Your task to perform on an android device: View the shopping cart on target. Add alienware aurora to the cart on target Image 0: 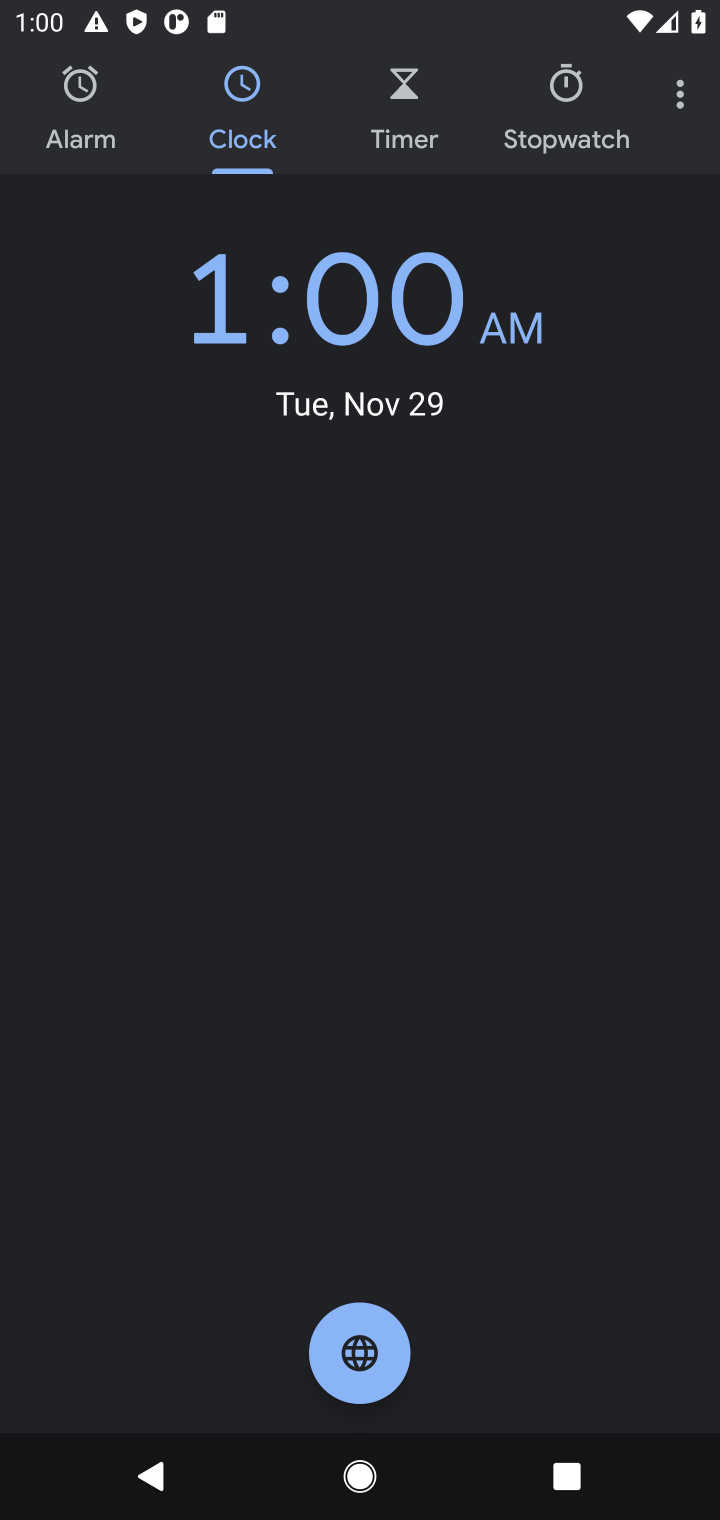
Step 0: press home button
Your task to perform on an android device: View the shopping cart on target. Add alienware aurora to the cart on target Image 1: 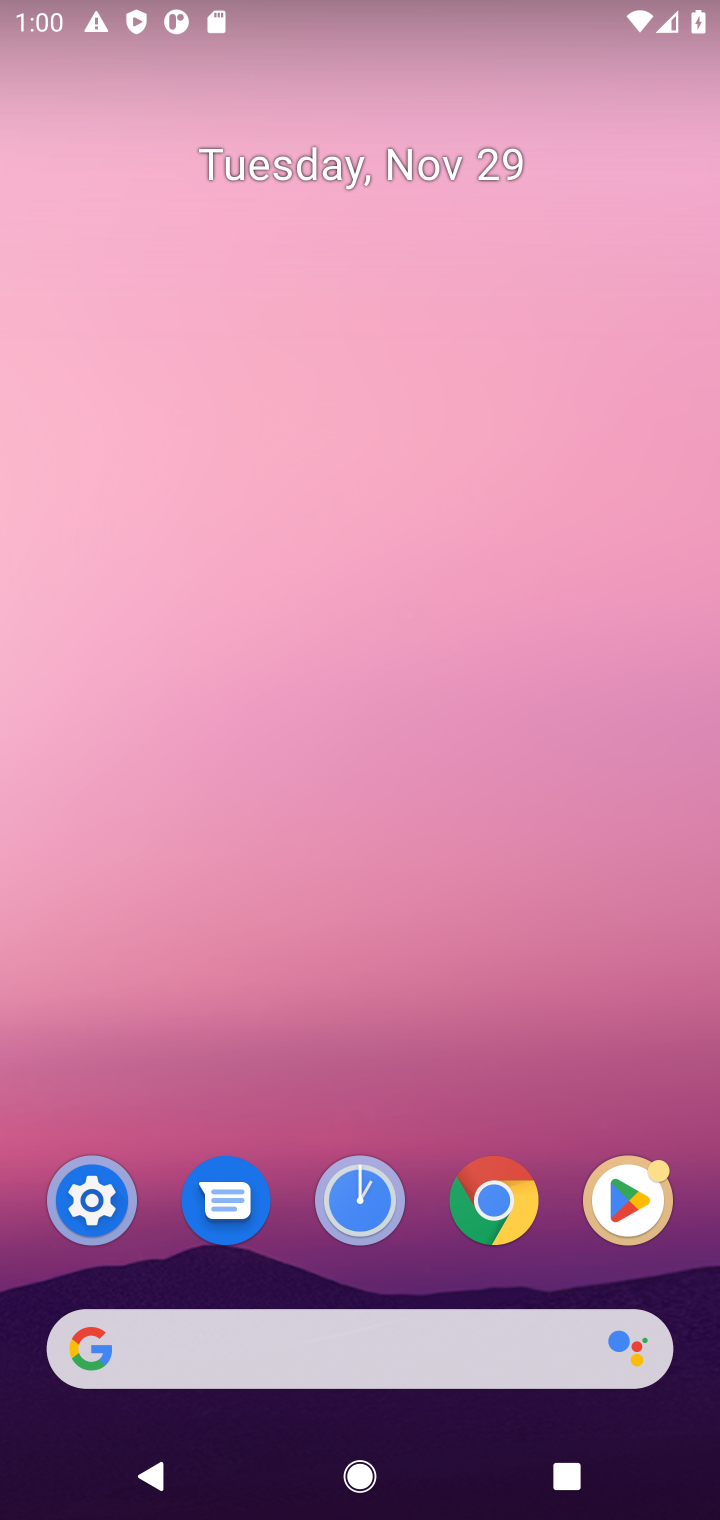
Step 1: click (309, 1323)
Your task to perform on an android device: View the shopping cart on target. Add alienware aurora to the cart on target Image 2: 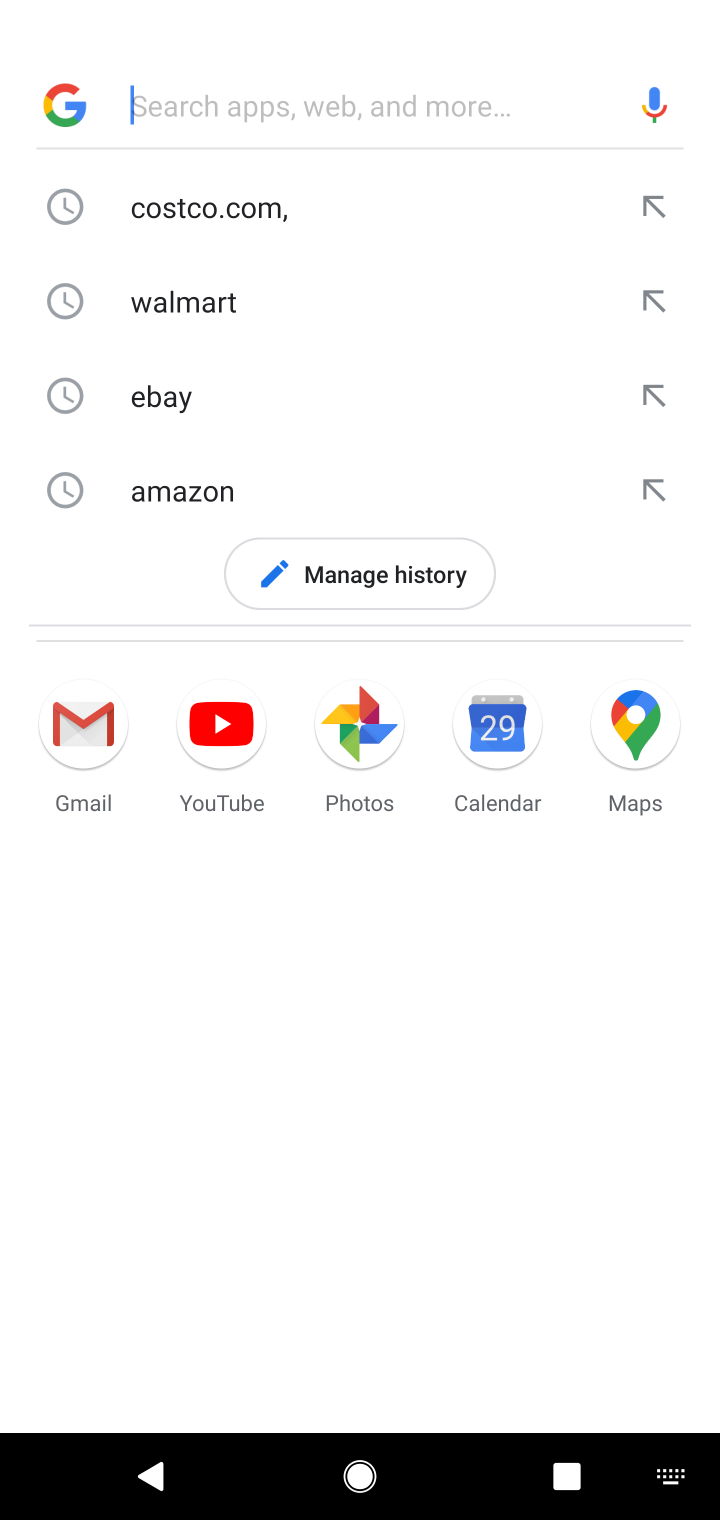
Step 2: click (170, 338)
Your task to perform on an android device: View the shopping cart on target. Add alienware aurora to the cart on target Image 3: 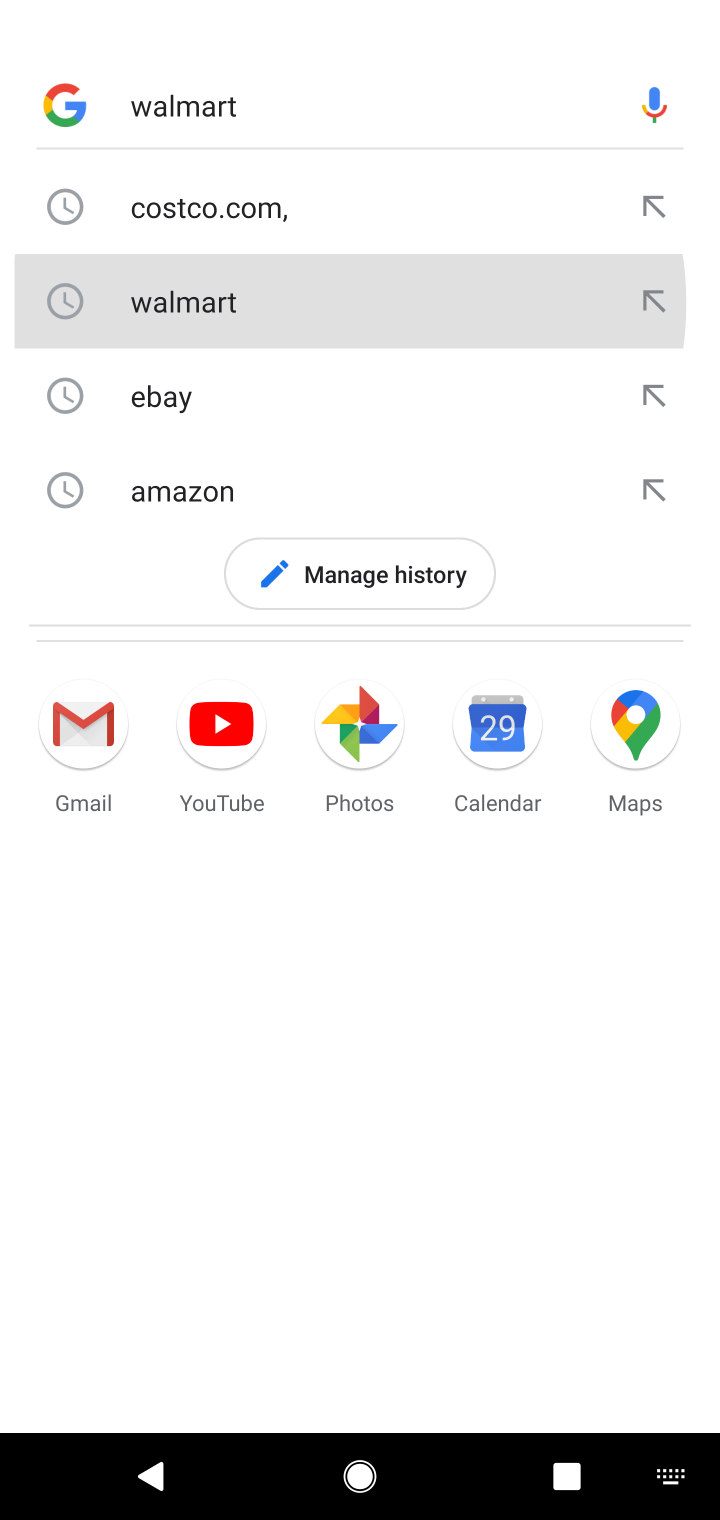
Step 3: task complete